Your task to perform on an android device: Add macbook pro 13 inch to the cart on costco.com Image 0: 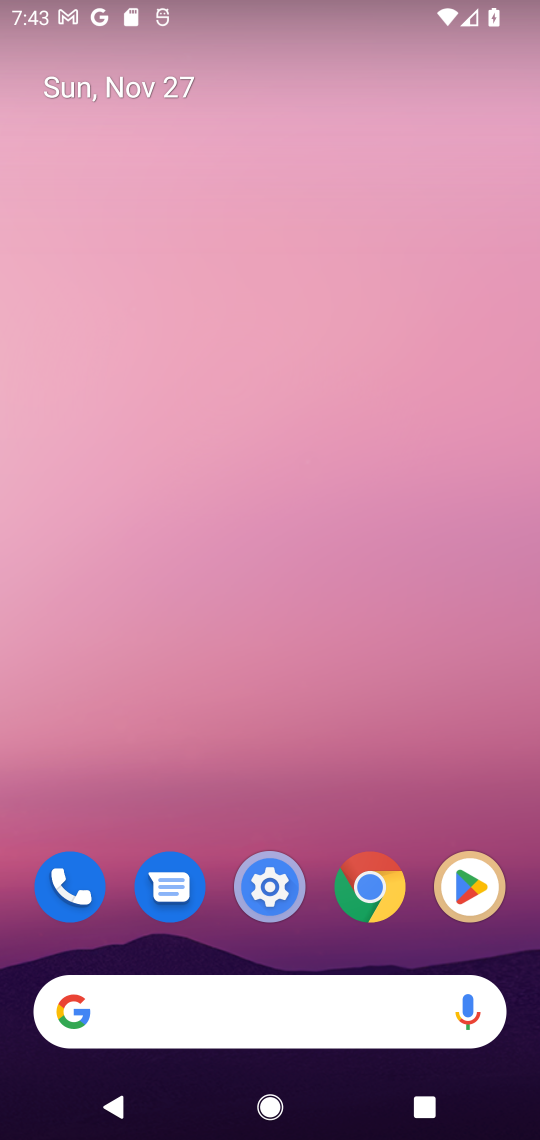
Step 0: press home button
Your task to perform on an android device: Add macbook pro 13 inch to the cart on costco.com Image 1: 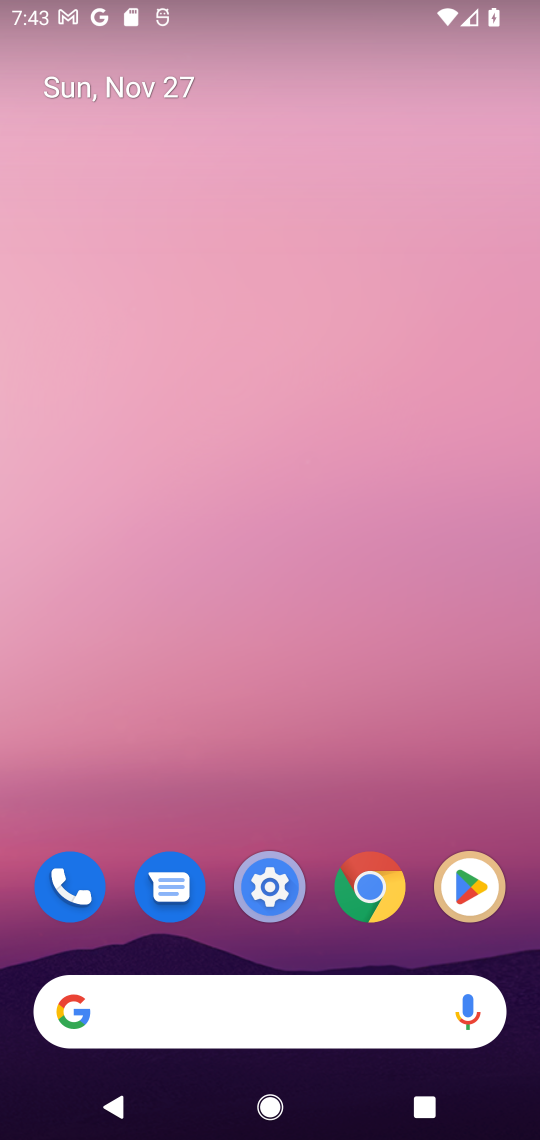
Step 1: click (306, 994)
Your task to perform on an android device: Add macbook pro 13 inch to the cart on costco.com Image 2: 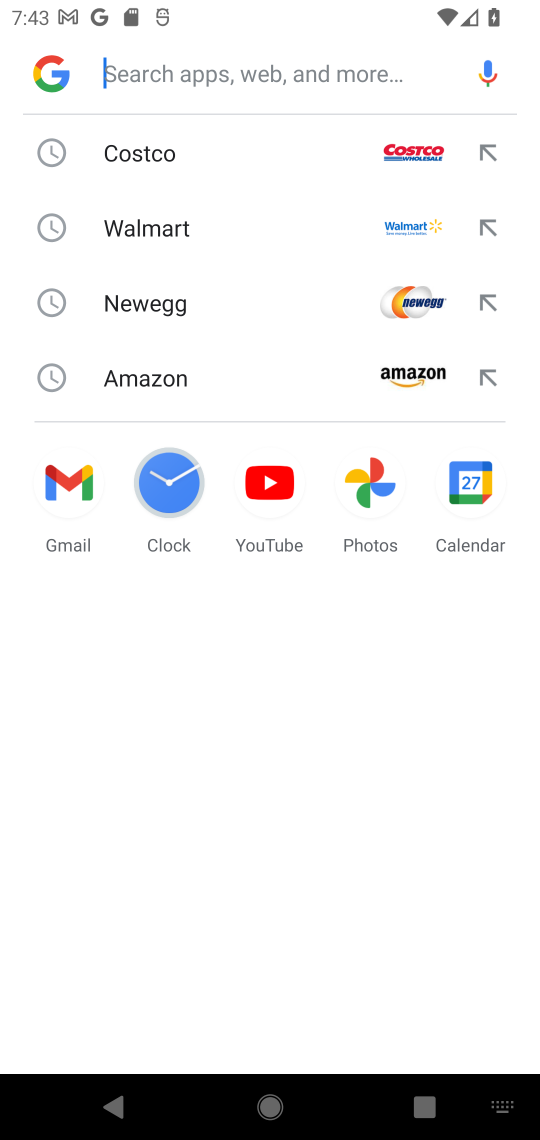
Step 2: click (291, 163)
Your task to perform on an android device: Add macbook pro 13 inch to the cart on costco.com Image 3: 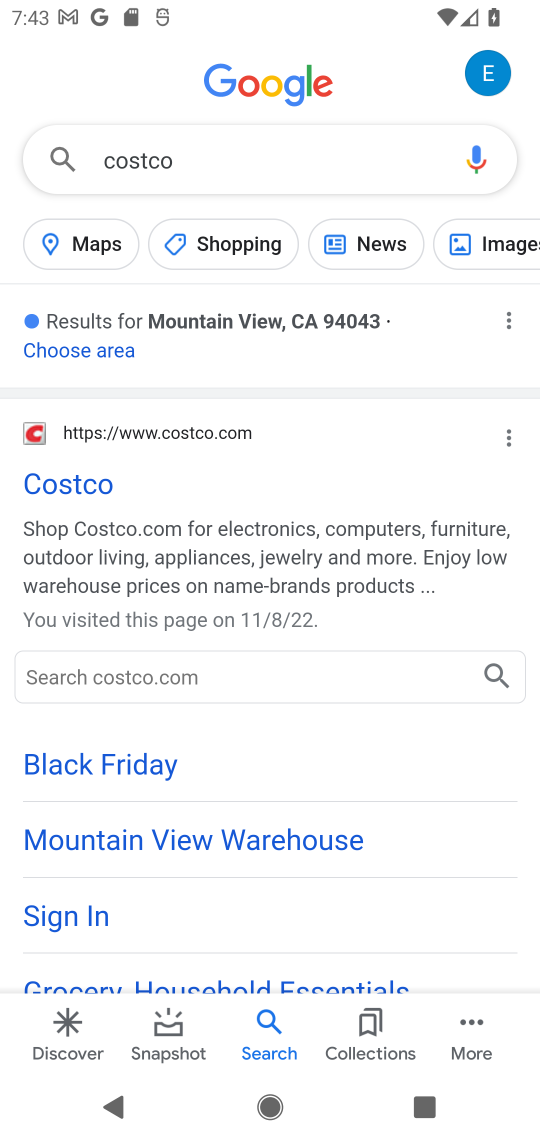
Step 3: click (115, 465)
Your task to perform on an android device: Add macbook pro 13 inch to the cart on costco.com Image 4: 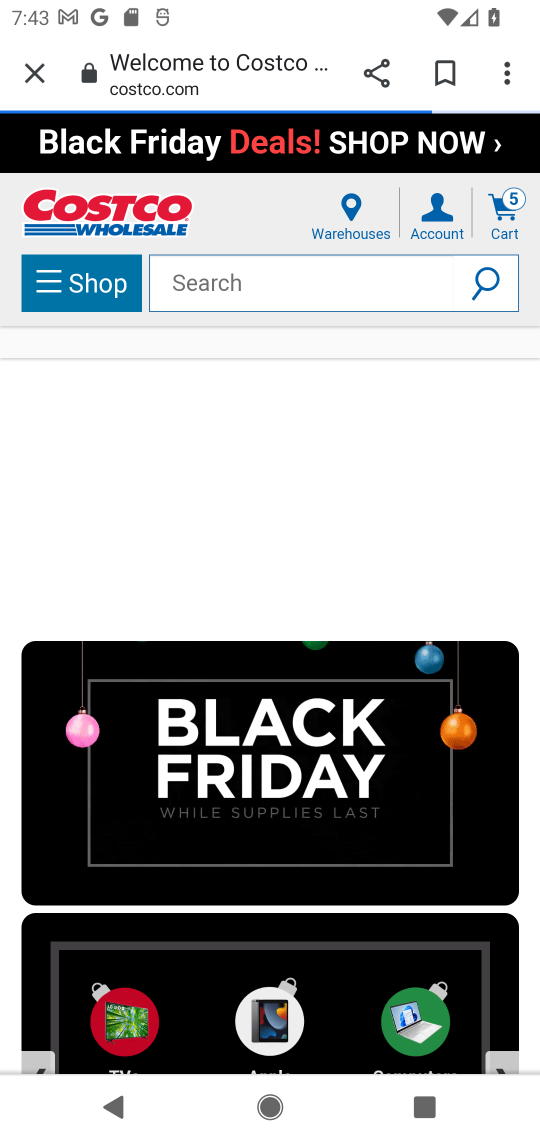
Step 4: click (283, 296)
Your task to perform on an android device: Add macbook pro 13 inch to the cart on costco.com Image 5: 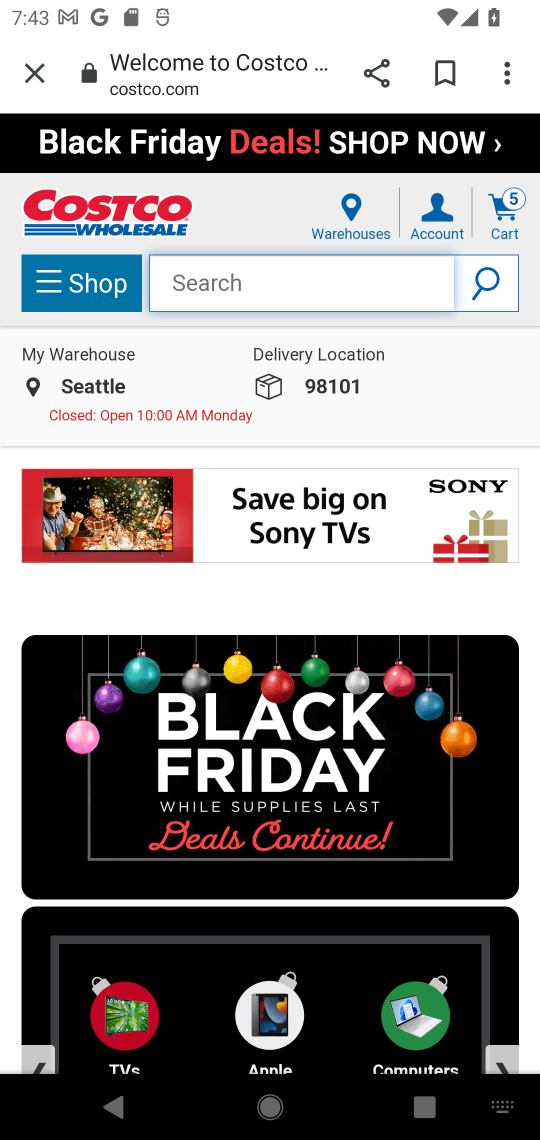
Step 5: type "macbook air pro"
Your task to perform on an android device: Add macbook pro 13 inch to the cart on costco.com Image 6: 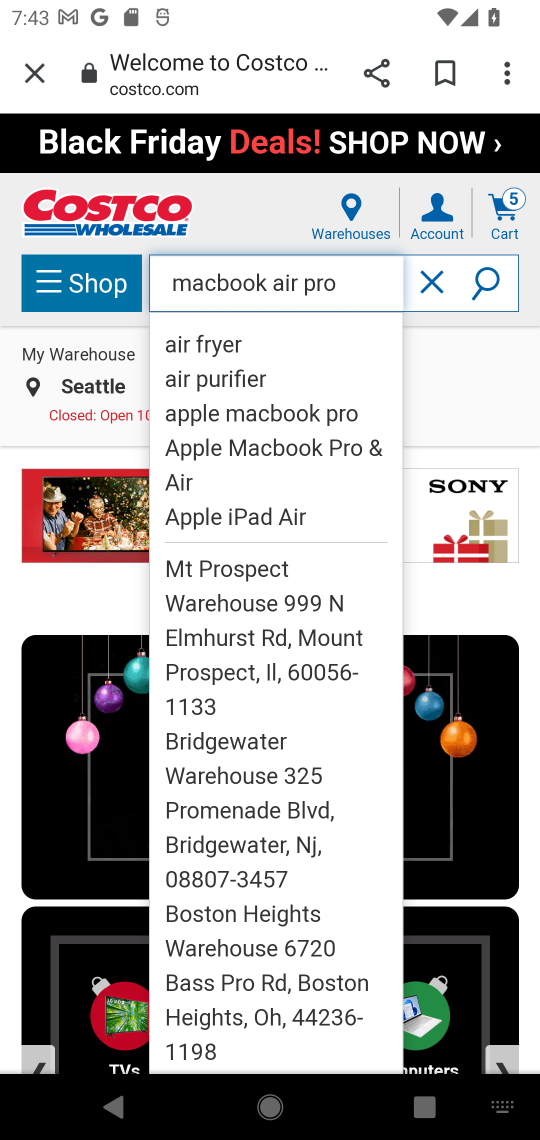
Step 6: click (473, 288)
Your task to perform on an android device: Add macbook pro 13 inch to the cart on costco.com Image 7: 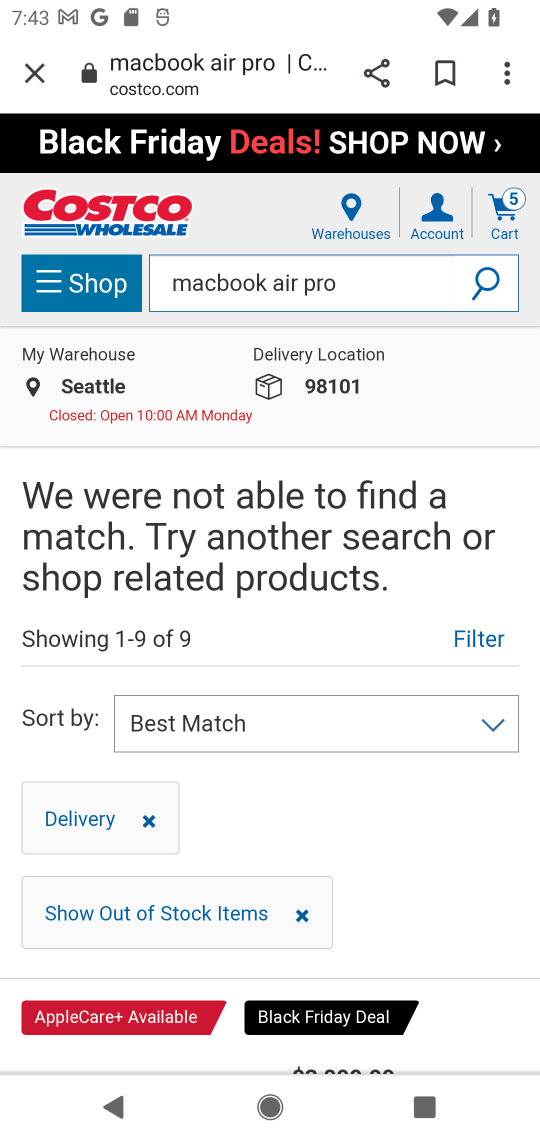
Step 7: click (153, 819)
Your task to perform on an android device: Add macbook pro 13 inch to the cart on costco.com Image 8: 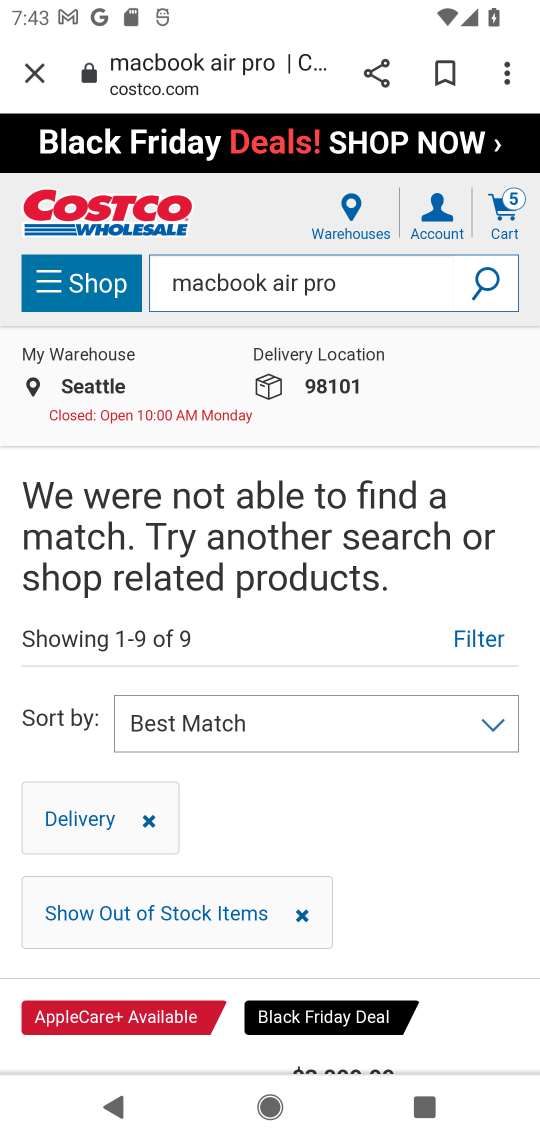
Step 8: click (300, 921)
Your task to perform on an android device: Add macbook pro 13 inch to the cart on costco.com Image 9: 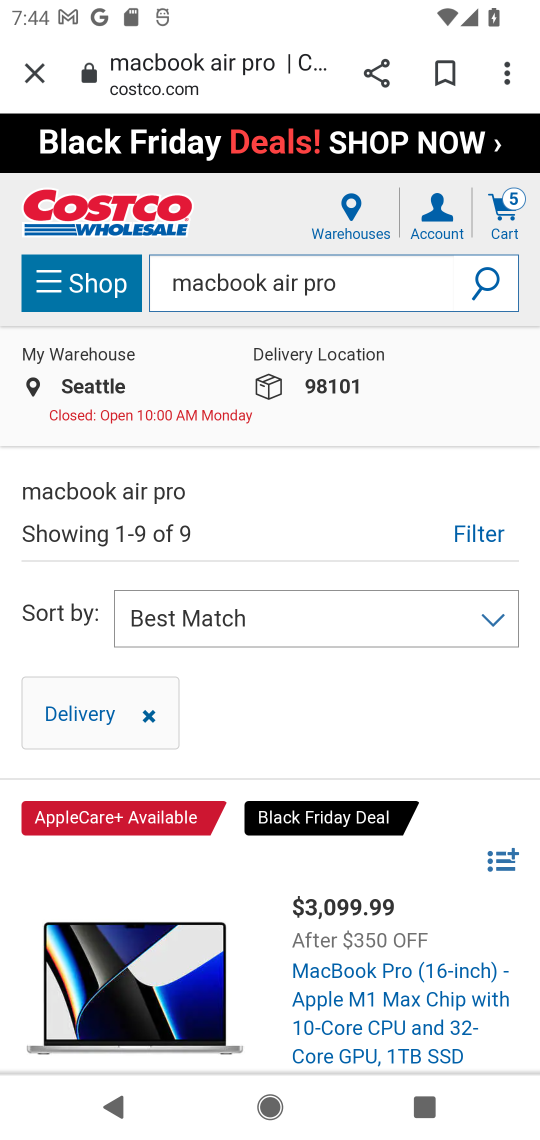
Step 9: click (146, 718)
Your task to perform on an android device: Add macbook pro 13 inch to the cart on costco.com Image 10: 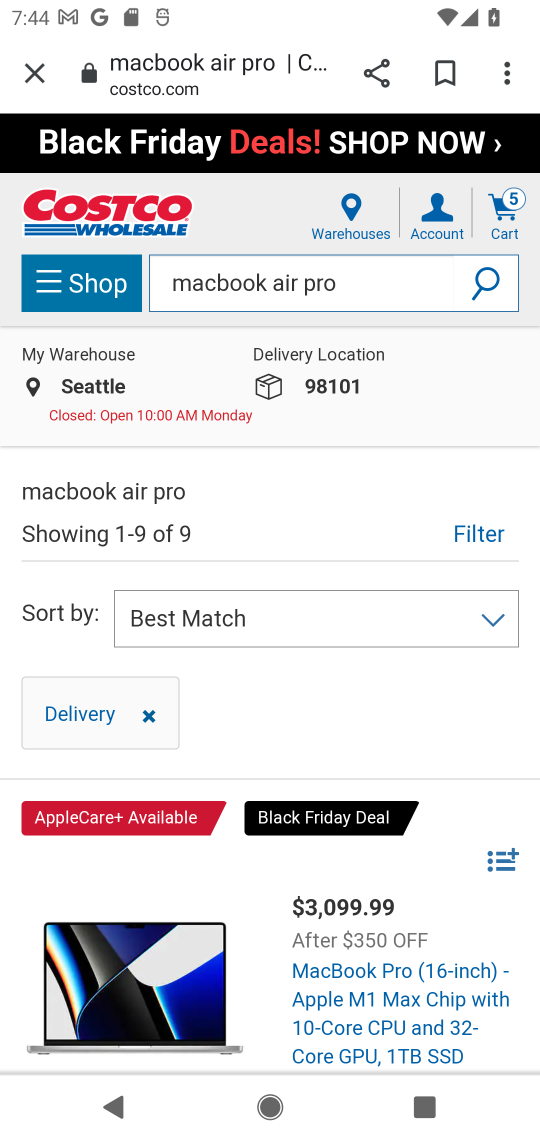
Step 10: drag from (321, 721) to (321, 338)
Your task to perform on an android device: Add macbook pro 13 inch to the cart on costco.com Image 11: 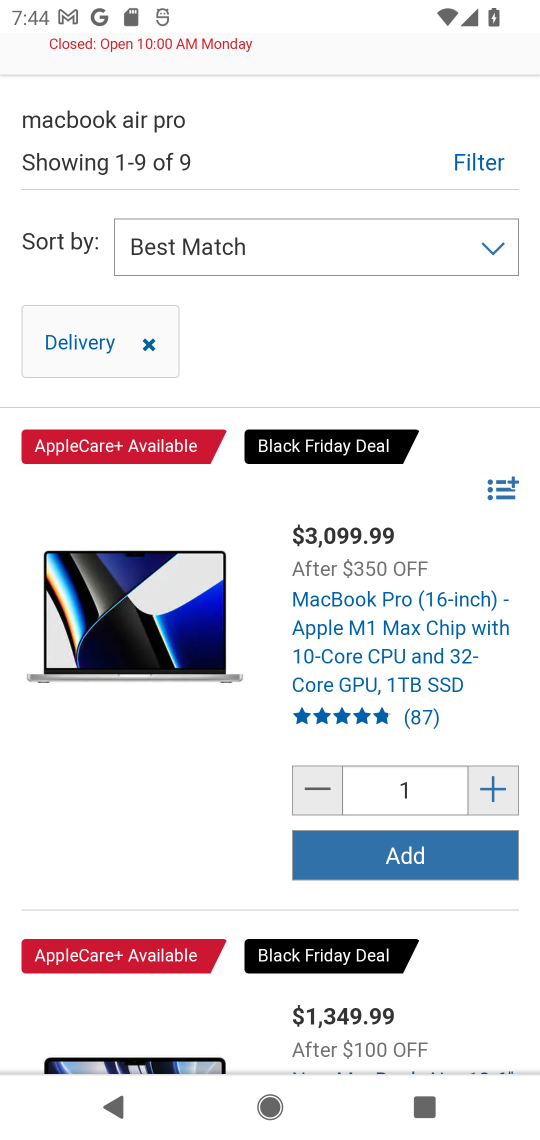
Step 11: click (372, 833)
Your task to perform on an android device: Add macbook pro 13 inch to the cart on costco.com Image 12: 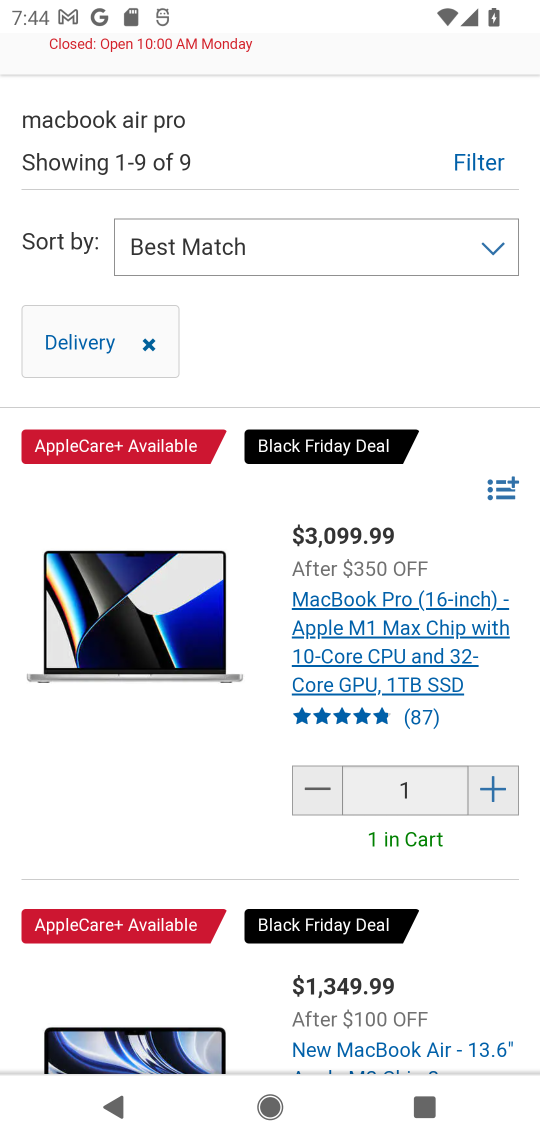
Step 12: task complete